Your task to perform on an android device: What's the news in Thailand? Image 0: 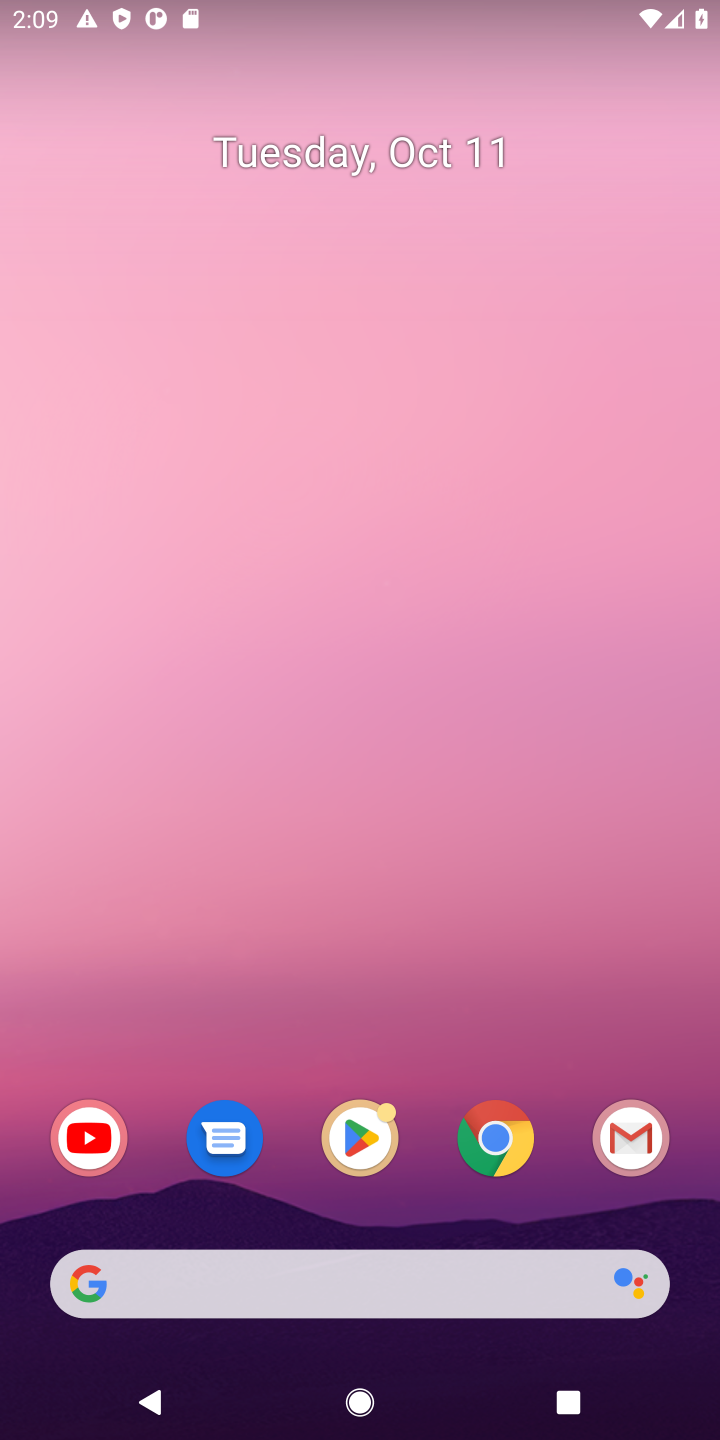
Step 0: click (505, 1131)
Your task to perform on an android device: What's the news in Thailand? Image 1: 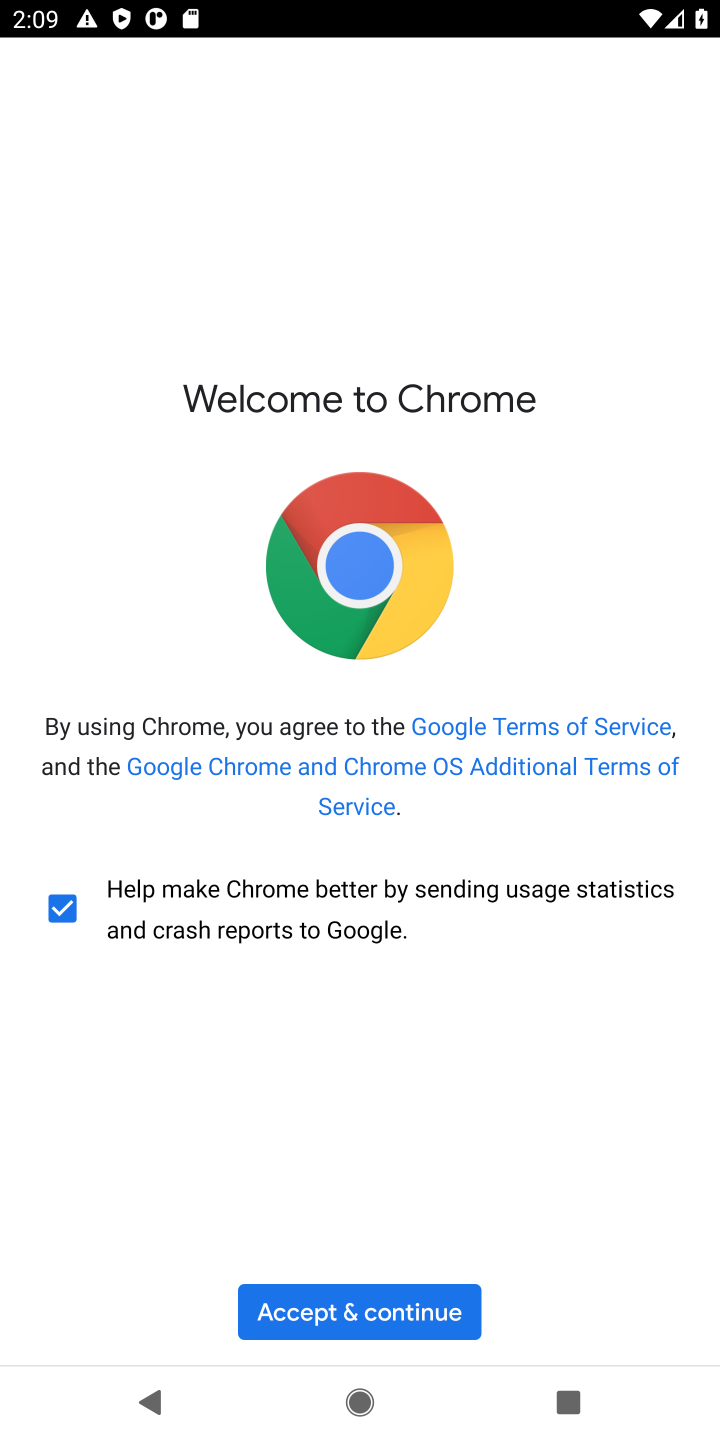
Step 1: click (416, 1298)
Your task to perform on an android device: What's the news in Thailand? Image 2: 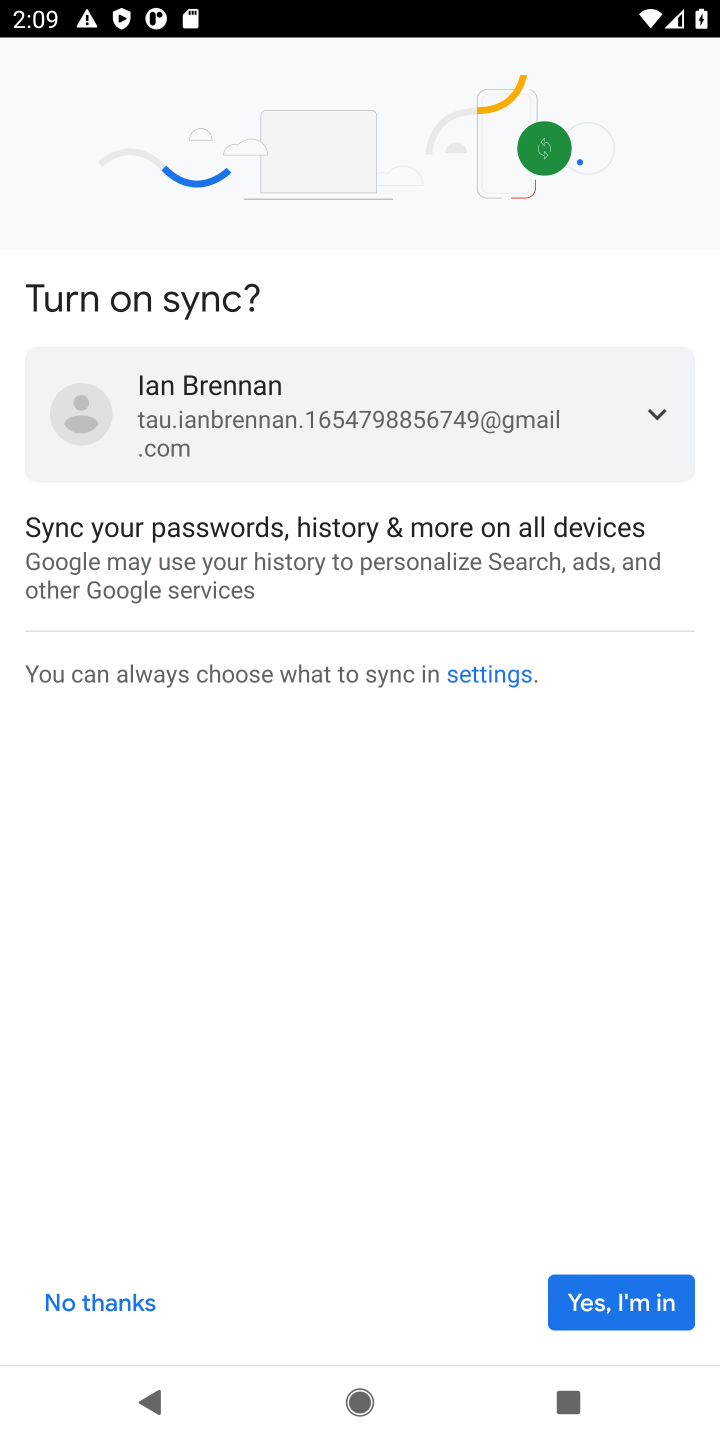
Step 2: click (594, 1318)
Your task to perform on an android device: What's the news in Thailand? Image 3: 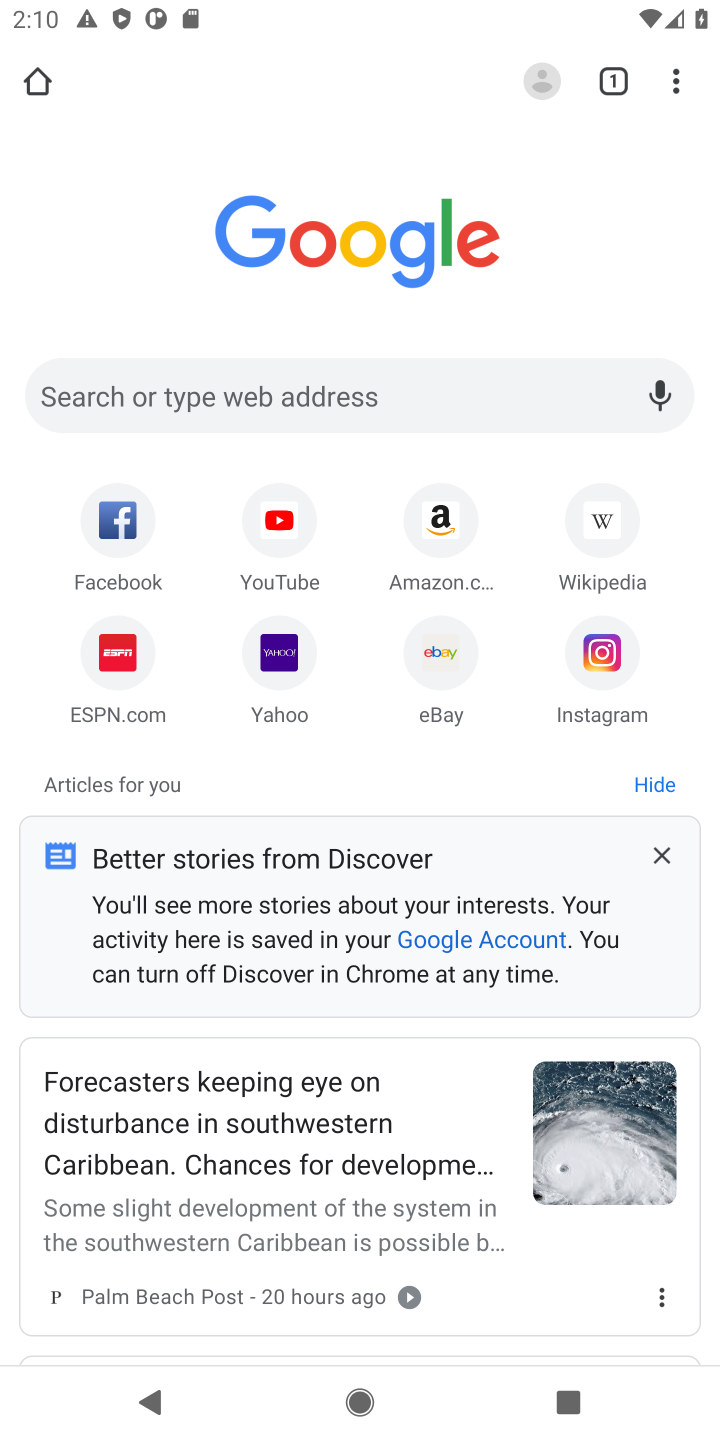
Step 3: click (287, 379)
Your task to perform on an android device: What's the news in Thailand? Image 4: 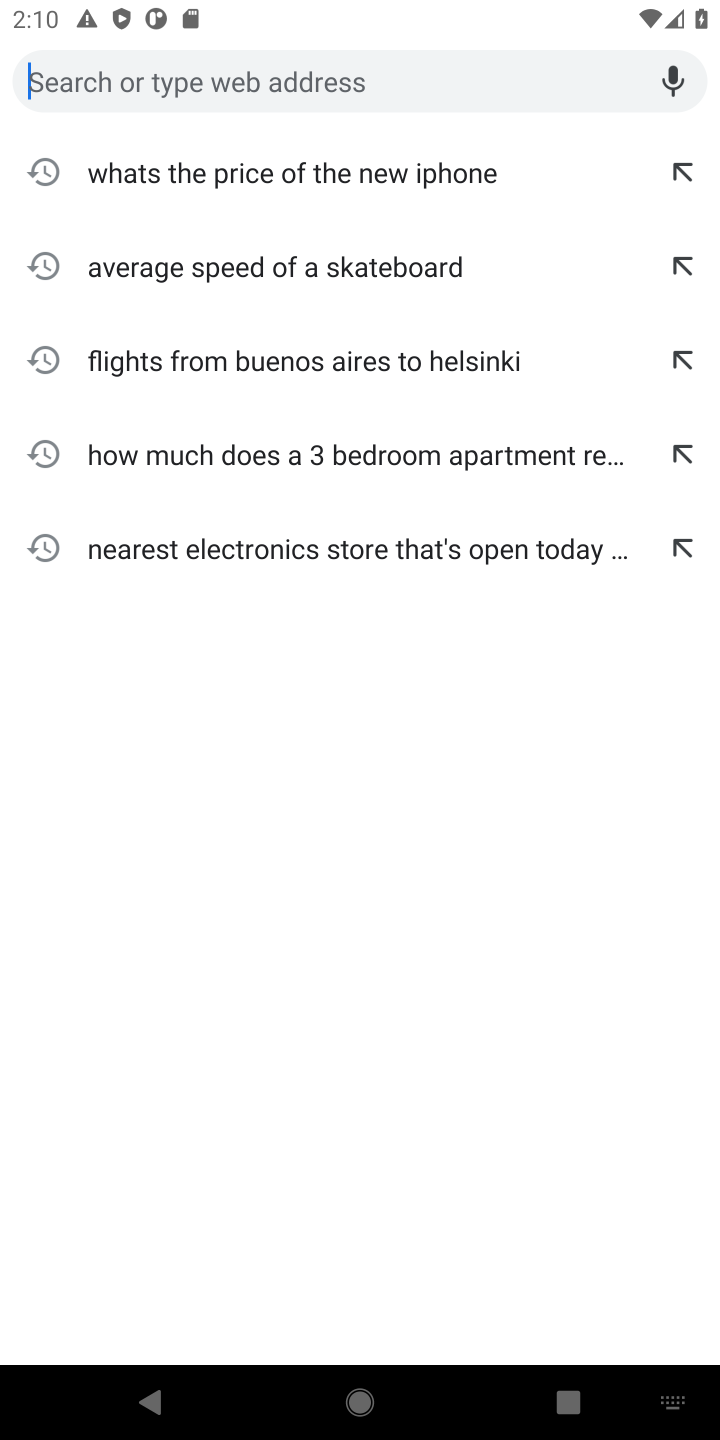
Step 4: type "news in thailand"
Your task to perform on an android device: What's the news in Thailand? Image 5: 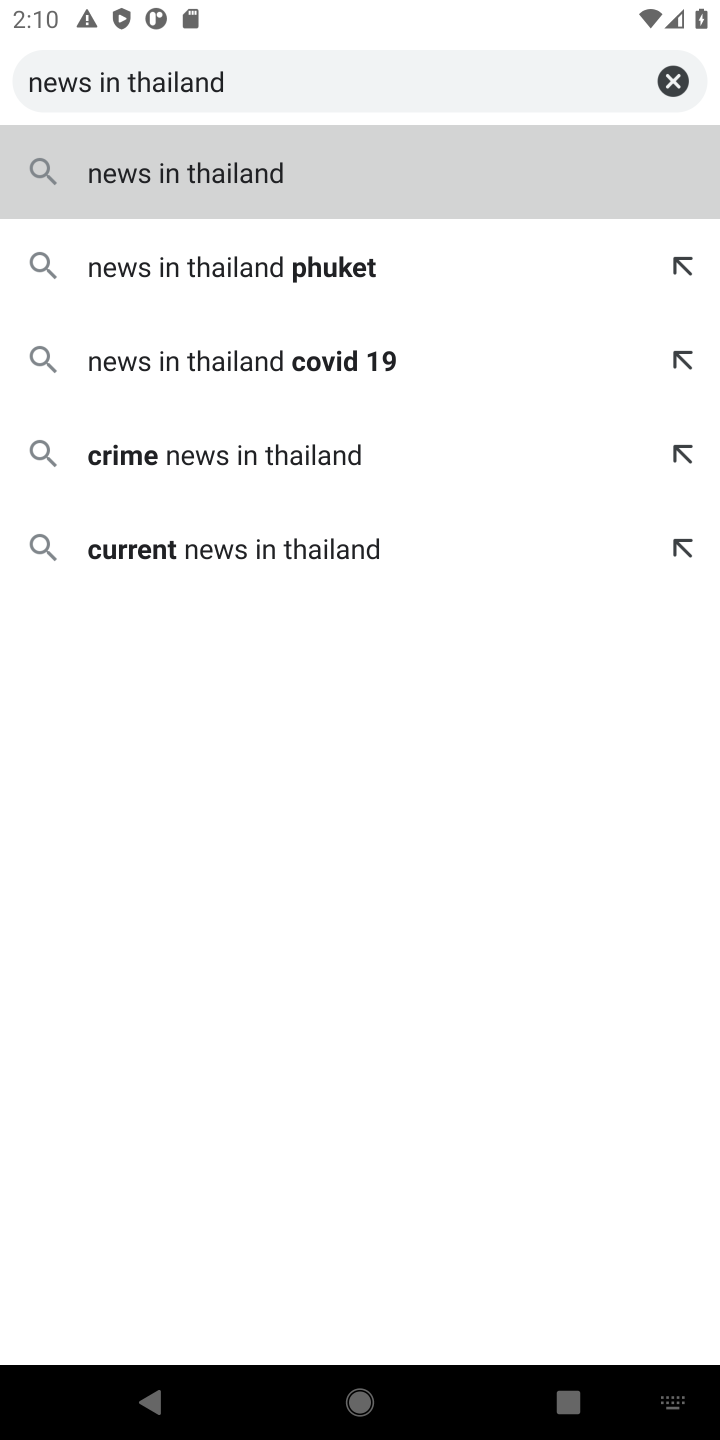
Step 5: click (220, 153)
Your task to perform on an android device: What's the news in Thailand? Image 6: 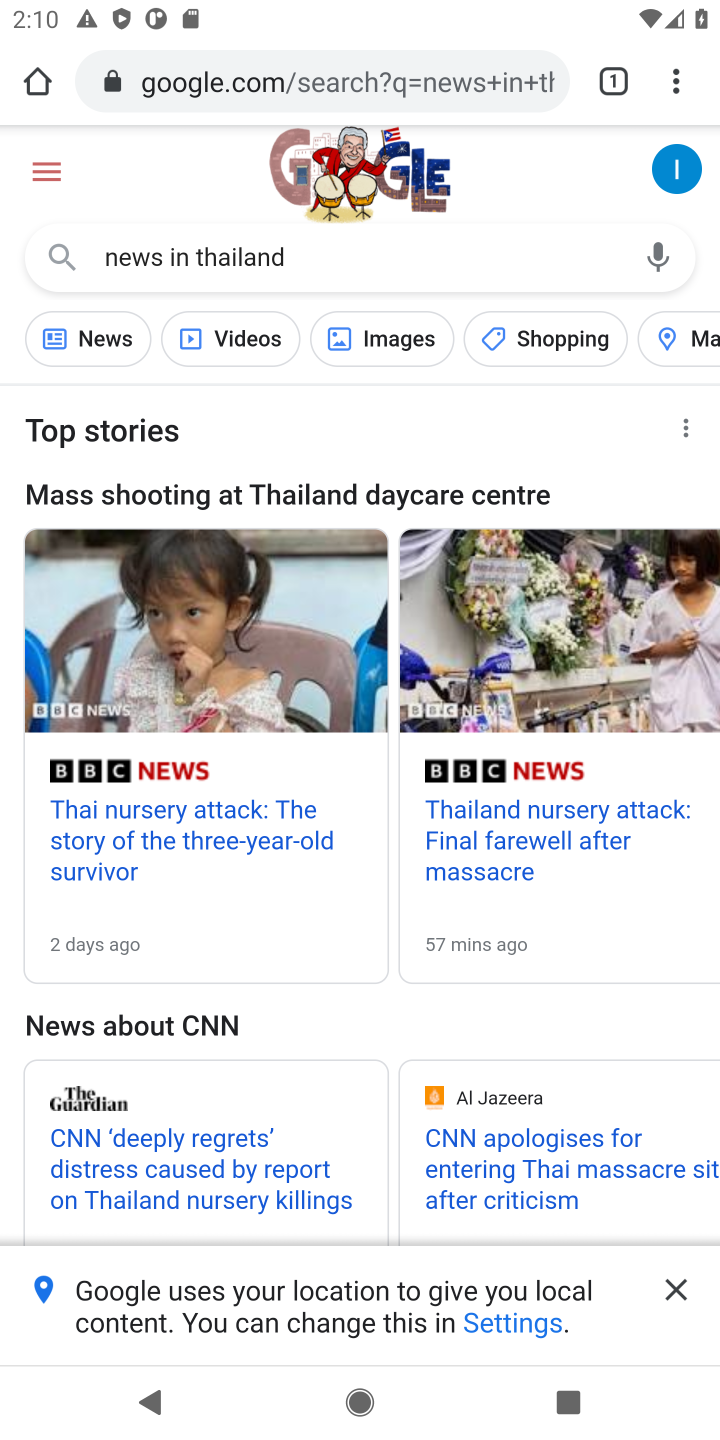
Step 6: click (105, 342)
Your task to perform on an android device: What's the news in Thailand? Image 7: 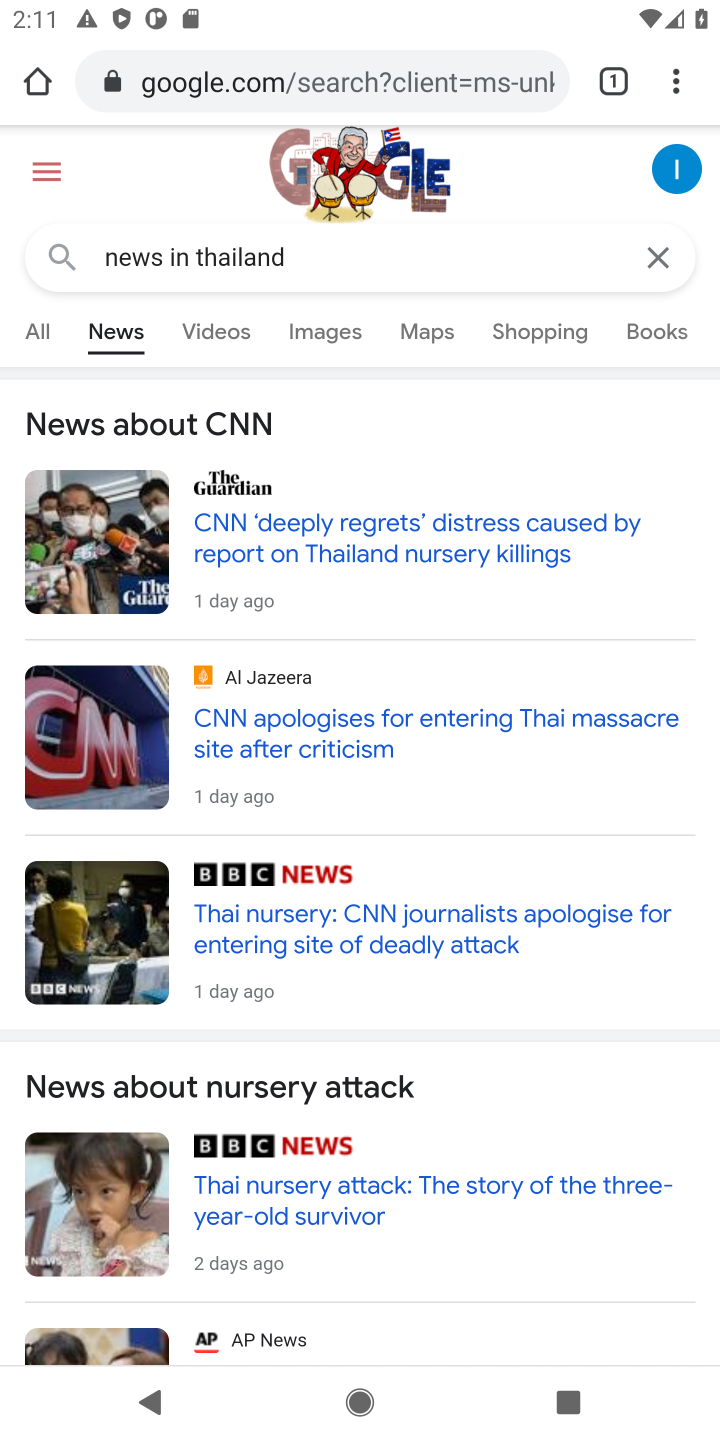
Step 7: task complete